Your task to perform on an android device: Go to notification settings Image 0: 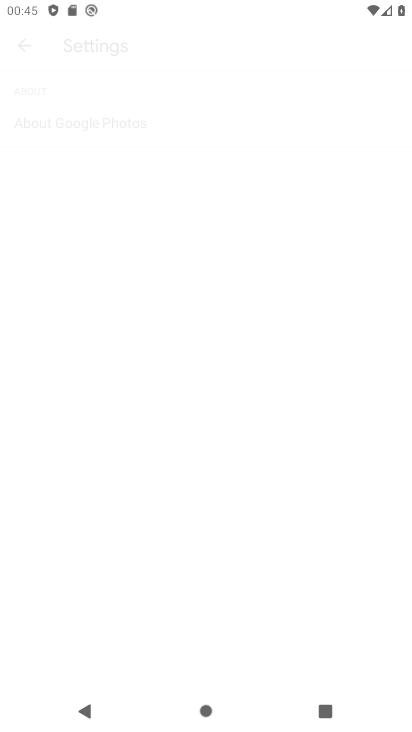
Step 0: click (129, 585)
Your task to perform on an android device: Go to notification settings Image 1: 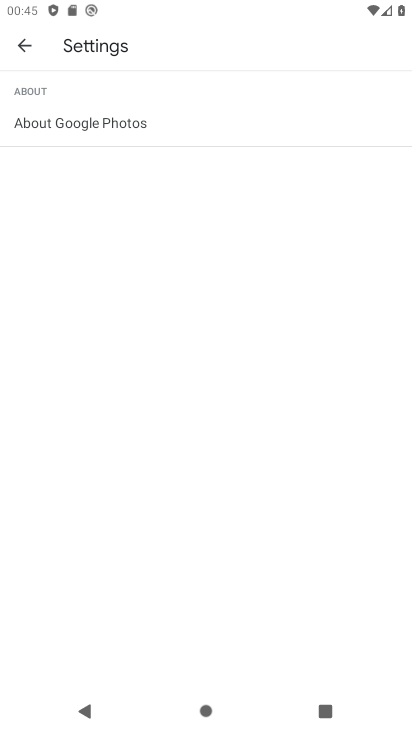
Step 1: press back button
Your task to perform on an android device: Go to notification settings Image 2: 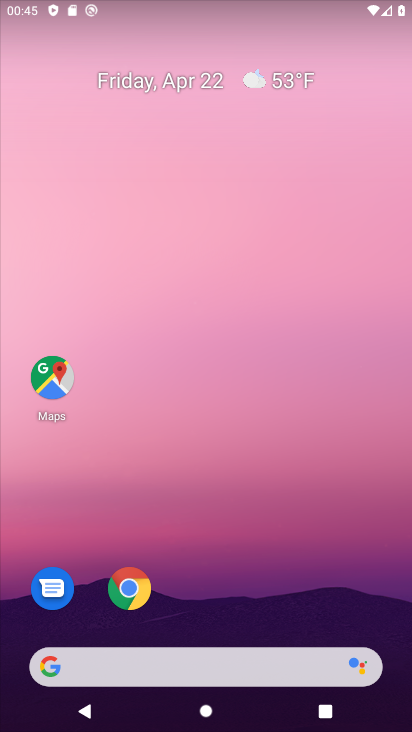
Step 2: drag from (214, 619) to (267, 108)
Your task to perform on an android device: Go to notification settings Image 3: 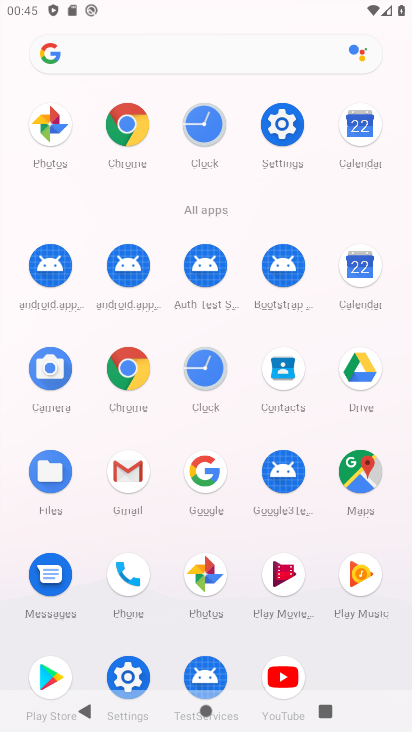
Step 3: click (285, 99)
Your task to perform on an android device: Go to notification settings Image 4: 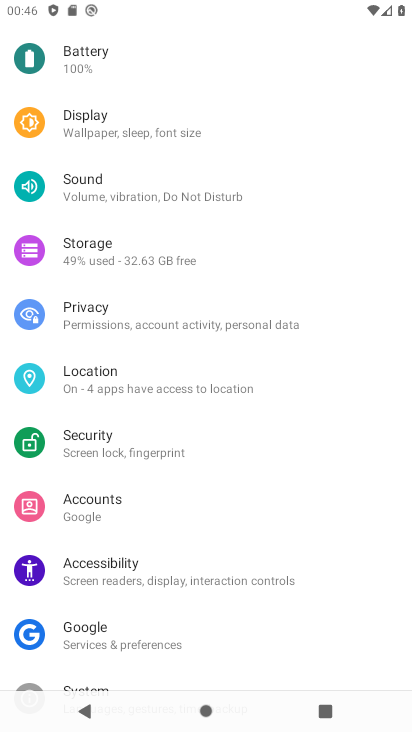
Step 4: drag from (203, 131) to (192, 627)
Your task to perform on an android device: Go to notification settings Image 5: 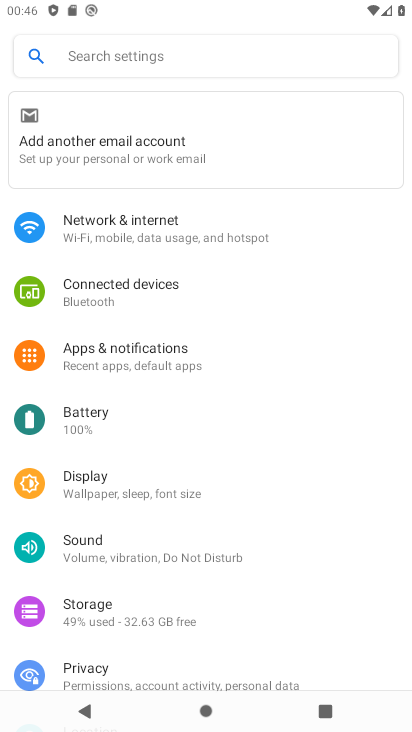
Step 5: click (140, 358)
Your task to perform on an android device: Go to notification settings Image 6: 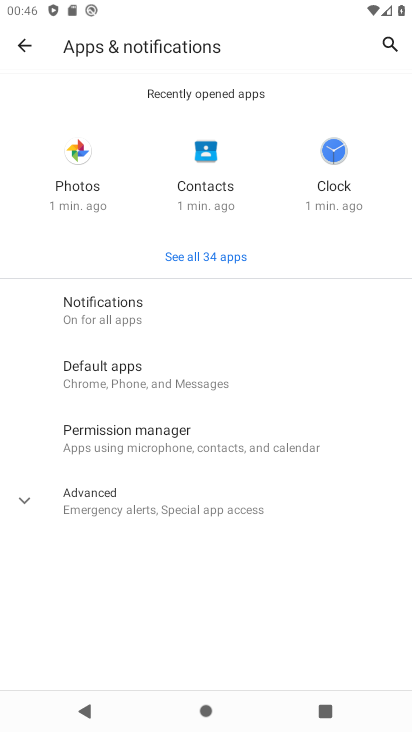
Step 6: task complete